Your task to perform on an android device: turn off location Image 0: 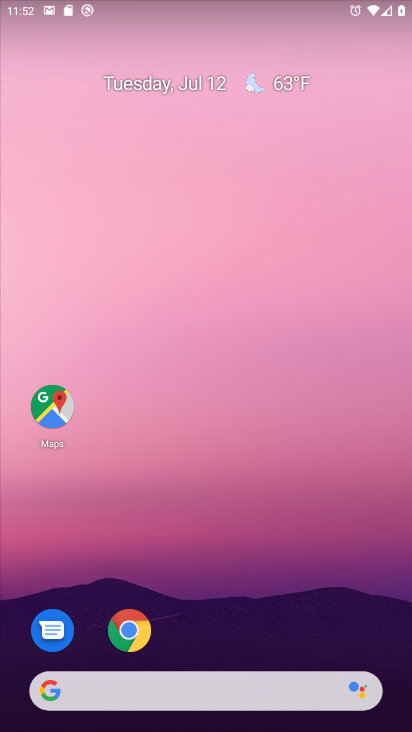
Step 0: click (276, 84)
Your task to perform on an android device: turn off location Image 1: 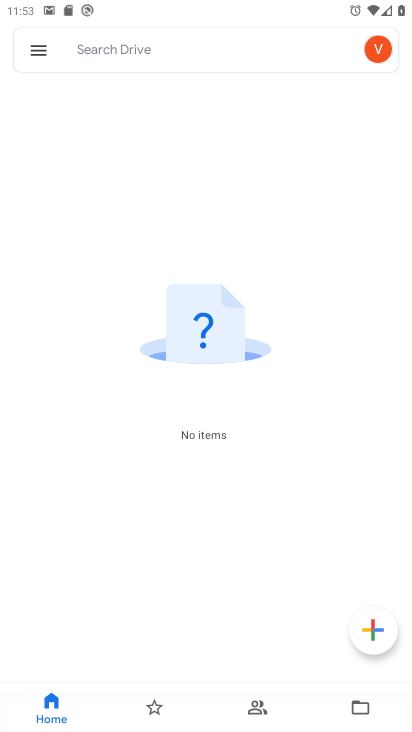
Step 1: press home button
Your task to perform on an android device: turn off location Image 2: 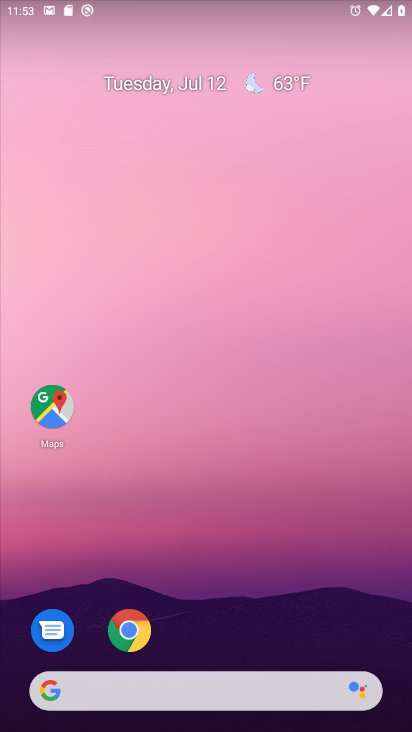
Step 2: drag from (199, 691) to (146, 158)
Your task to perform on an android device: turn off location Image 3: 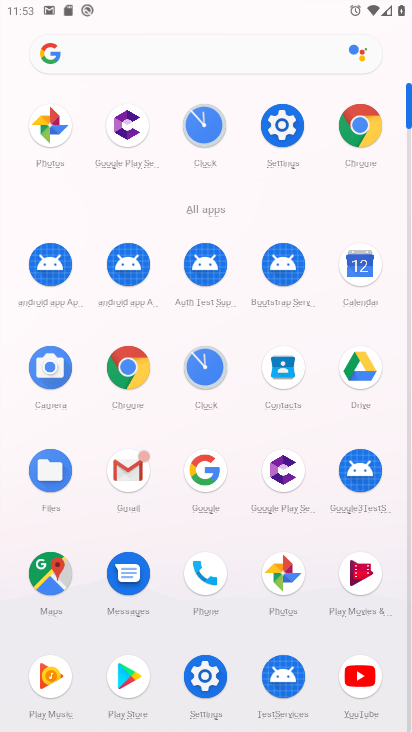
Step 3: click (282, 125)
Your task to perform on an android device: turn off location Image 4: 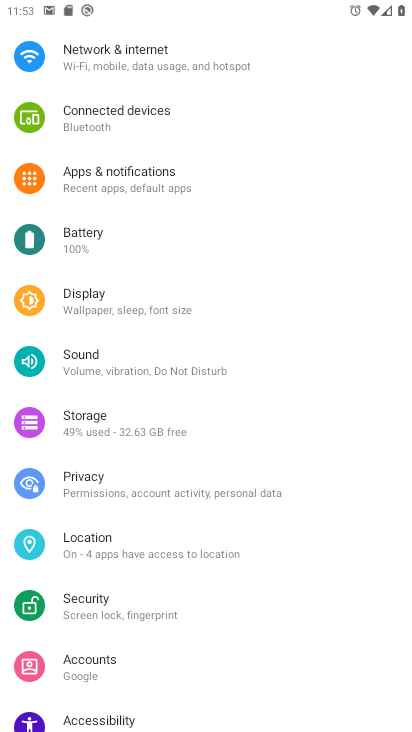
Step 4: click (130, 552)
Your task to perform on an android device: turn off location Image 5: 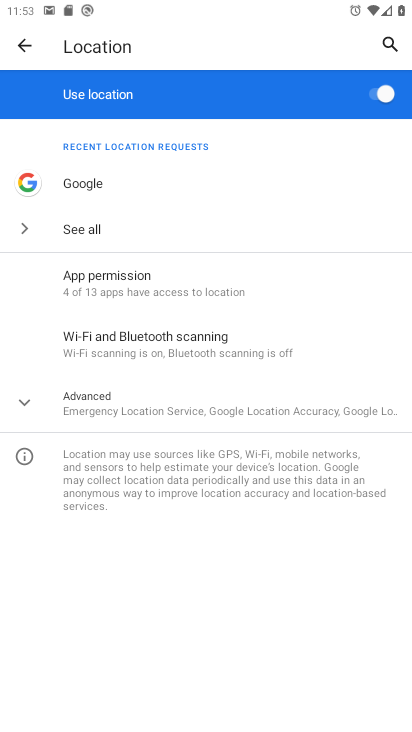
Step 5: click (386, 101)
Your task to perform on an android device: turn off location Image 6: 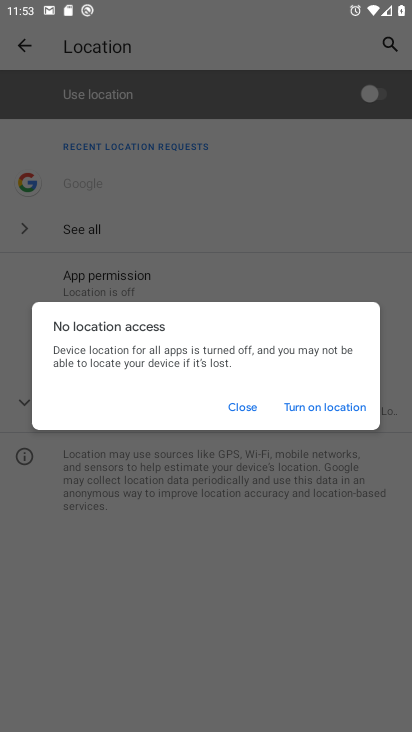
Step 6: click (239, 401)
Your task to perform on an android device: turn off location Image 7: 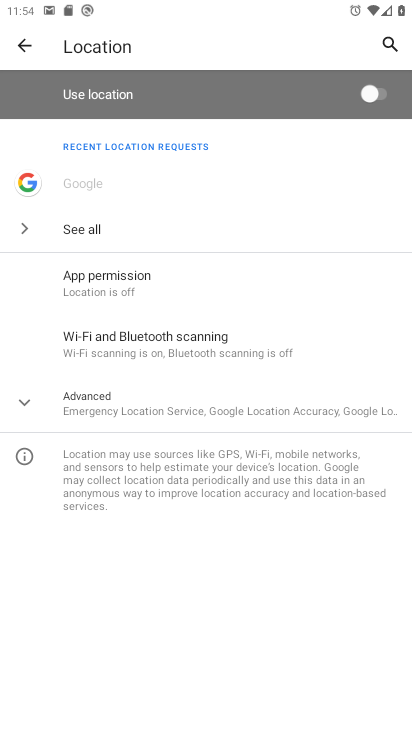
Step 7: task complete